Your task to perform on an android device: open app "YouTube Kids" (install if not already installed), go to login, and select forgot password Image 0: 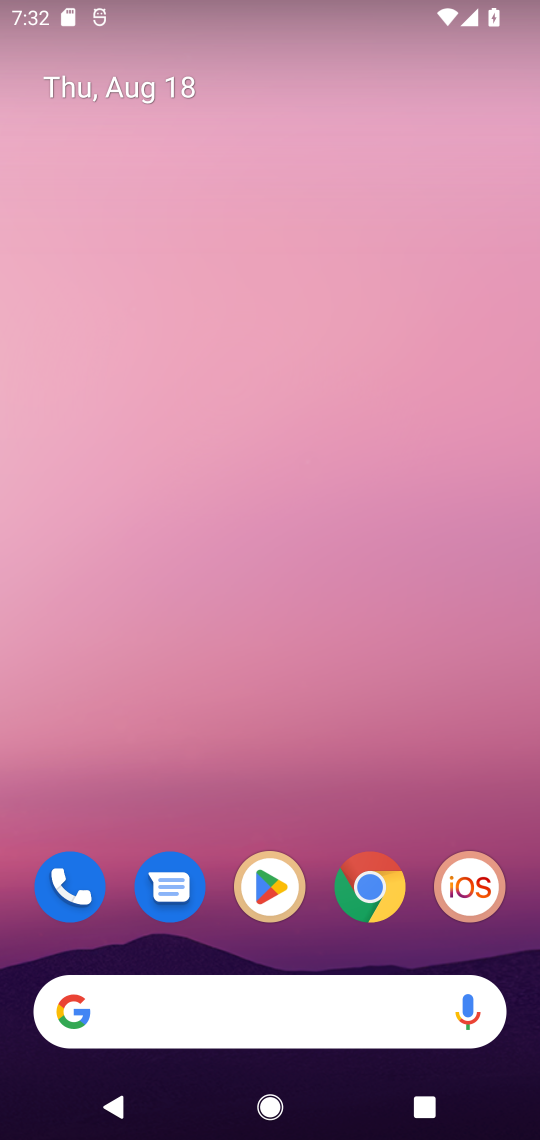
Step 0: click (270, 889)
Your task to perform on an android device: open app "YouTube Kids" (install if not already installed), go to login, and select forgot password Image 1: 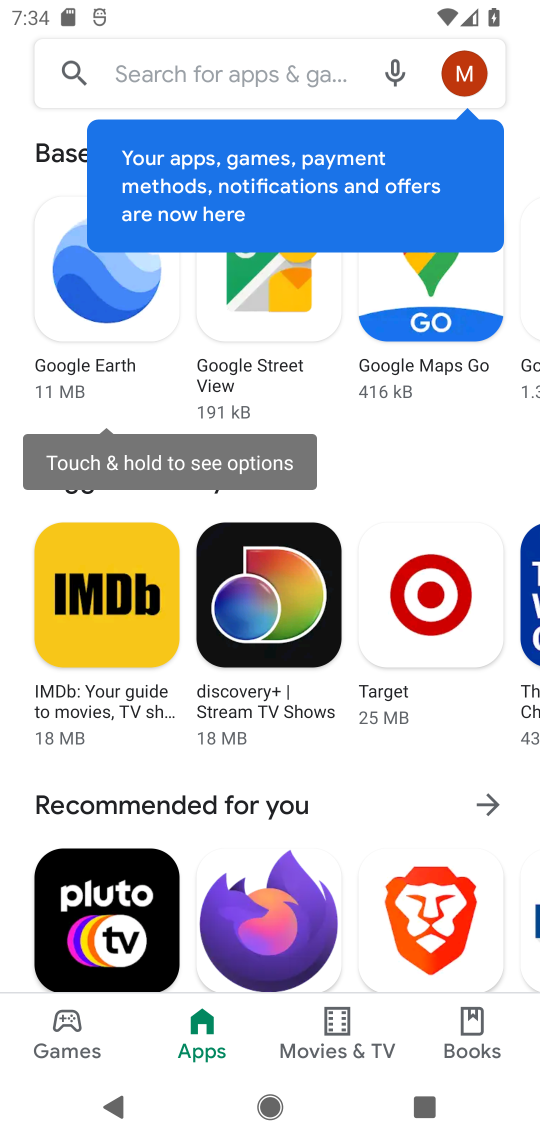
Step 1: click (266, 71)
Your task to perform on an android device: open app "YouTube Kids" (install if not already installed), go to login, and select forgot password Image 2: 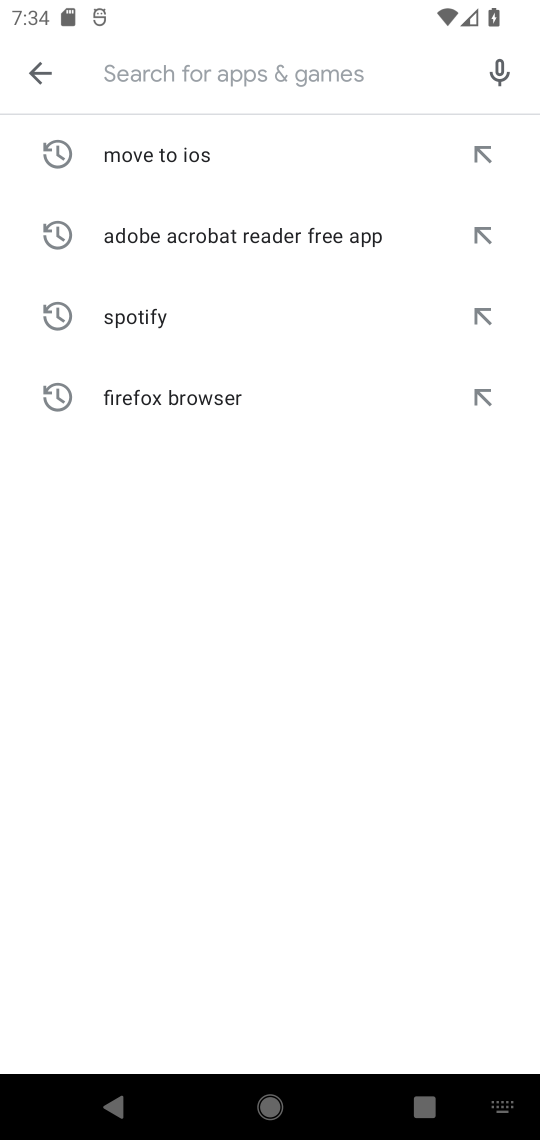
Step 2: type "YouTube Kids"
Your task to perform on an android device: open app "YouTube Kids" (install if not already installed), go to login, and select forgot password Image 3: 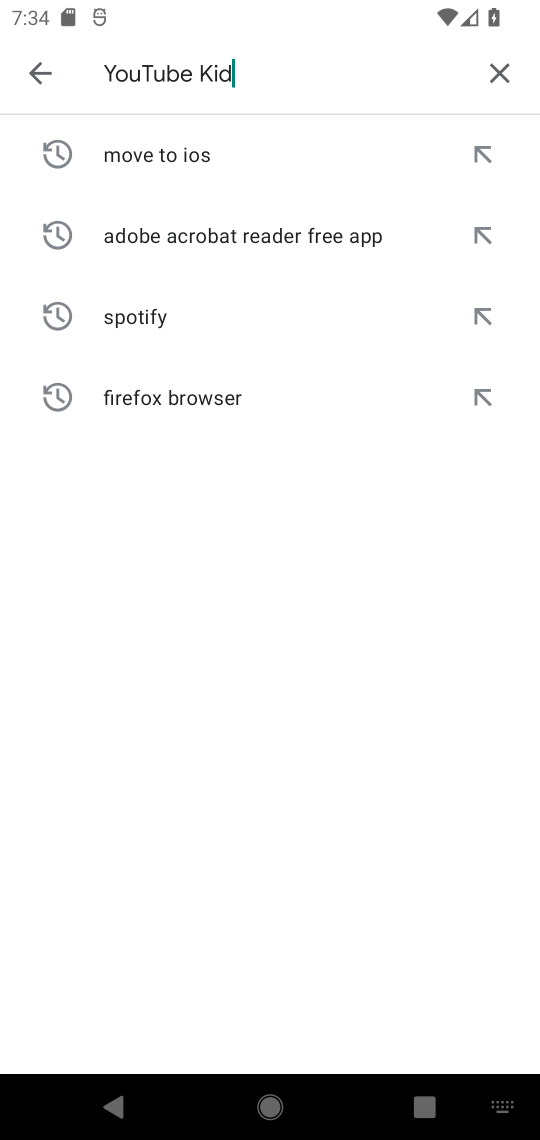
Step 3: type ""
Your task to perform on an android device: open app "YouTube Kids" (install if not already installed), go to login, and select forgot password Image 4: 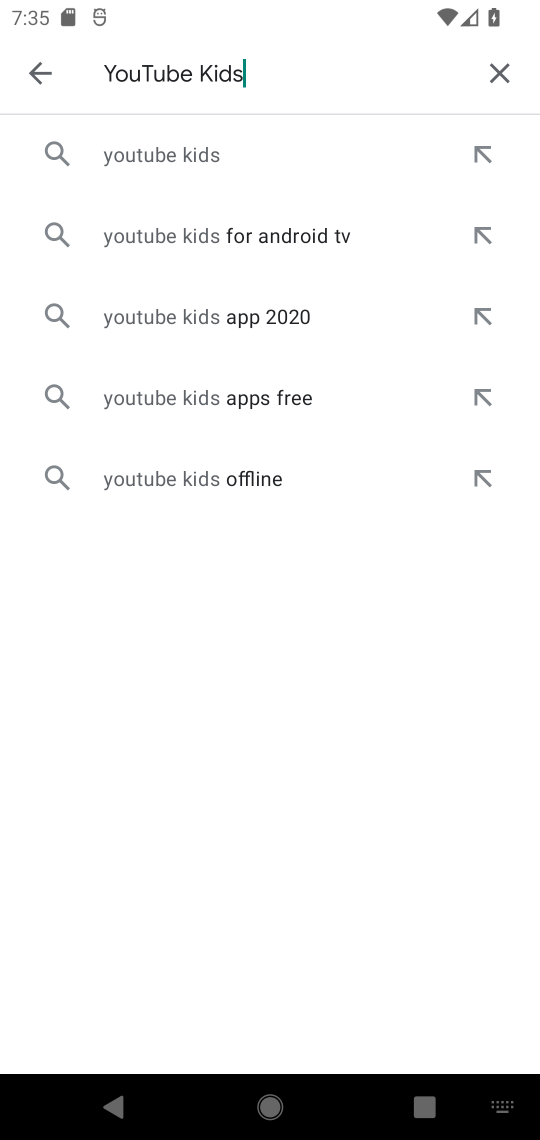
Step 4: click (136, 153)
Your task to perform on an android device: open app "YouTube Kids" (install if not already installed), go to login, and select forgot password Image 5: 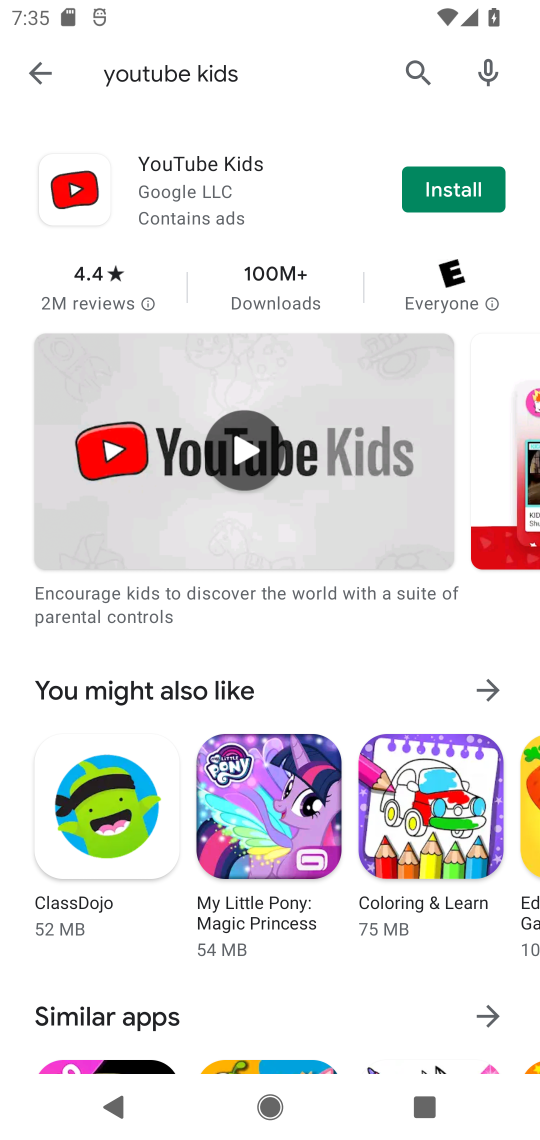
Step 5: click (467, 199)
Your task to perform on an android device: open app "YouTube Kids" (install if not already installed), go to login, and select forgot password Image 6: 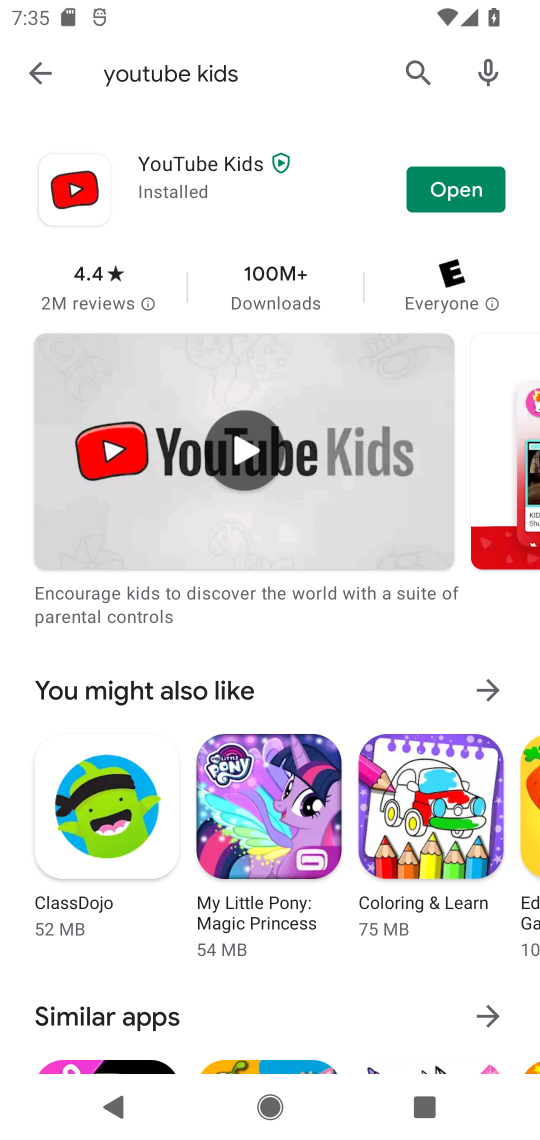
Step 6: click (446, 193)
Your task to perform on an android device: open app "YouTube Kids" (install if not already installed), go to login, and select forgot password Image 7: 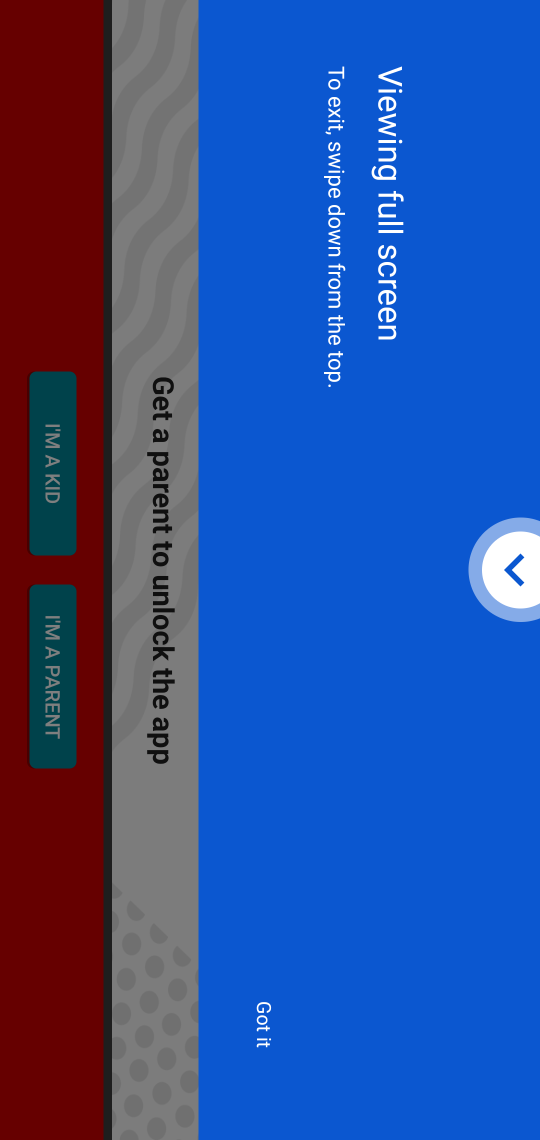
Step 7: task complete